Your task to perform on an android device: Go to location settings Image 0: 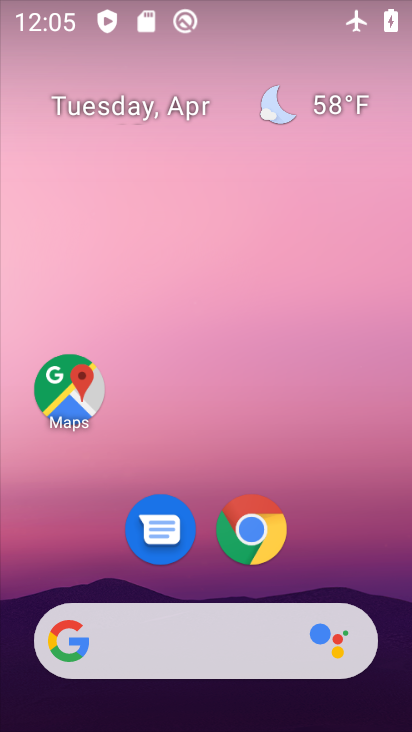
Step 0: drag from (383, 572) to (206, 61)
Your task to perform on an android device: Go to location settings Image 1: 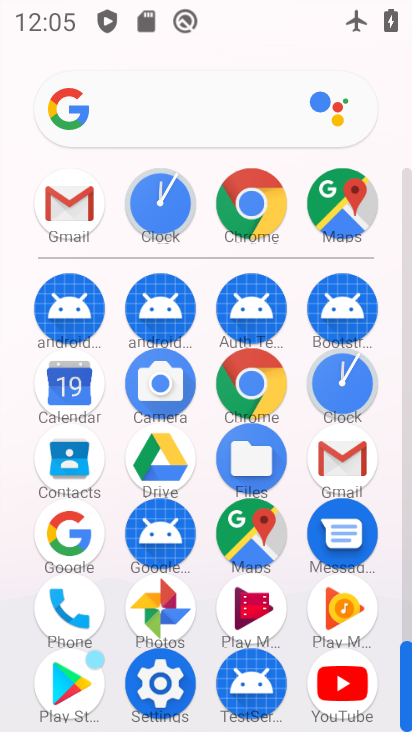
Step 1: click (165, 669)
Your task to perform on an android device: Go to location settings Image 2: 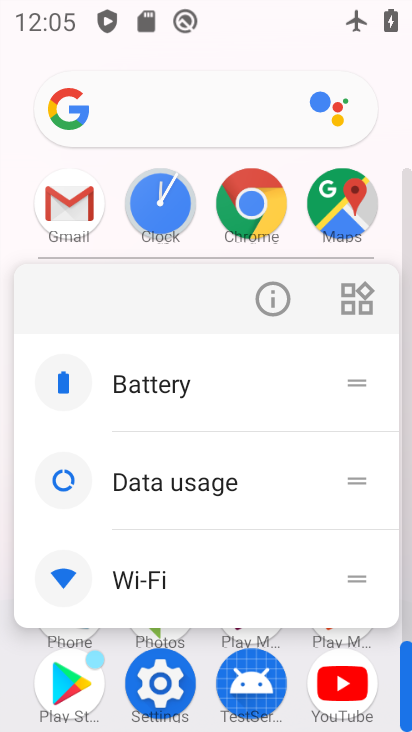
Step 2: click (165, 669)
Your task to perform on an android device: Go to location settings Image 3: 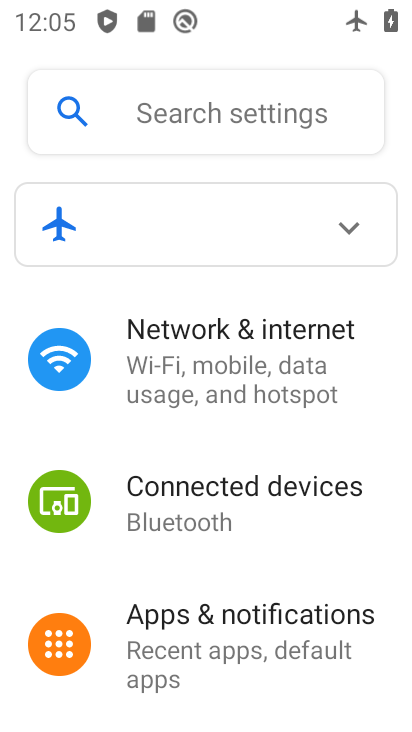
Step 3: drag from (176, 644) to (176, 8)
Your task to perform on an android device: Go to location settings Image 4: 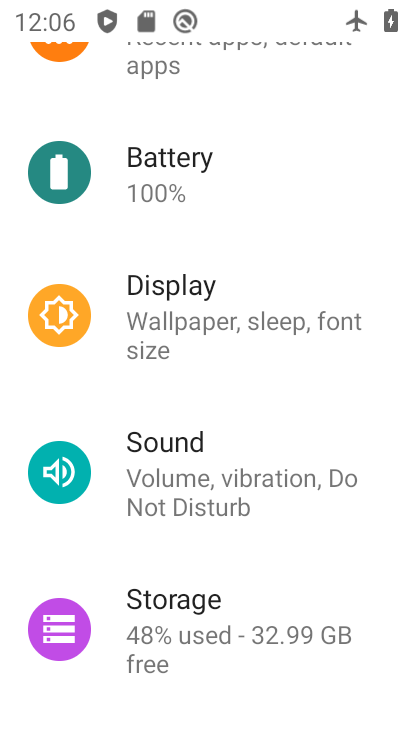
Step 4: drag from (214, 629) to (224, 110)
Your task to perform on an android device: Go to location settings Image 5: 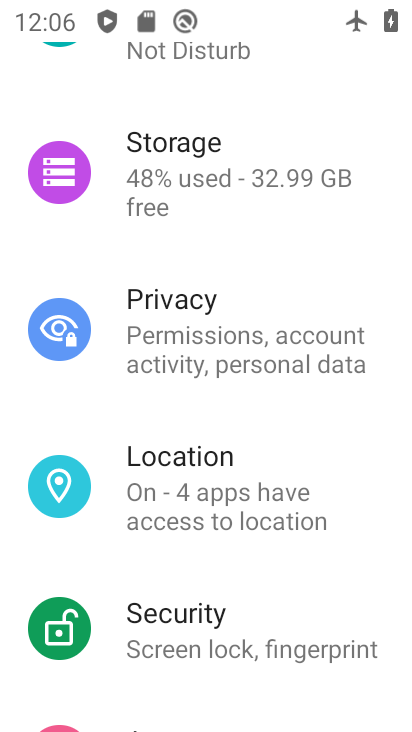
Step 5: click (214, 473)
Your task to perform on an android device: Go to location settings Image 6: 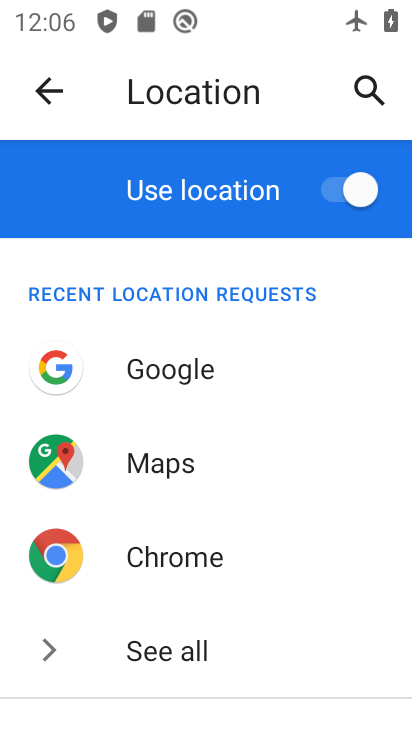
Step 6: task complete